Your task to perform on an android device: change notifications settings Image 0: 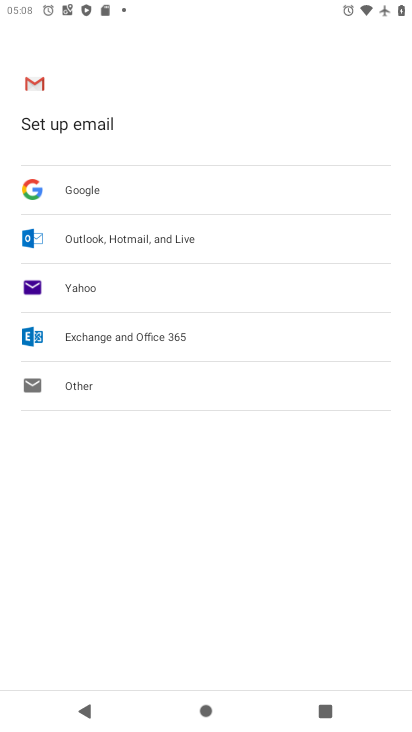
Step 0: press back button
Your task to perform on an android device: change notifications settings Image 1: 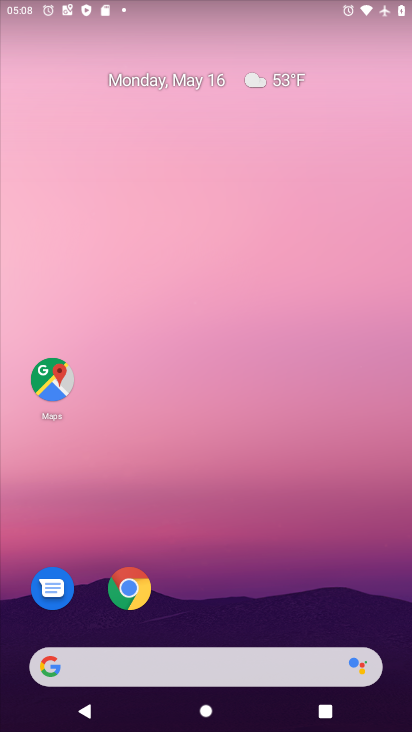
Step 1: drag from (238, 552) to (252, 3)
Your task to perform on an android device: change notifications settings Image 2: 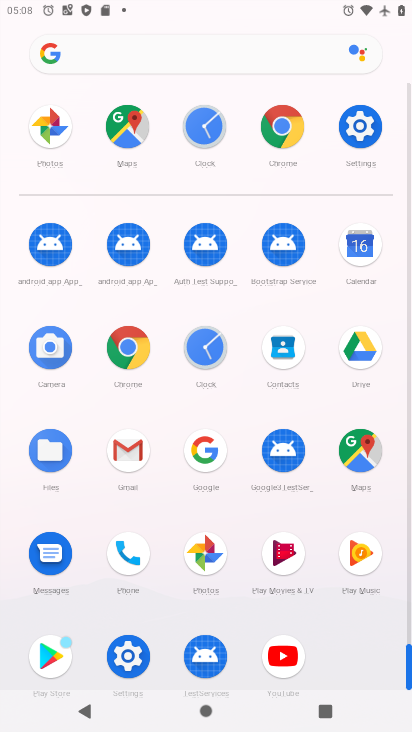
Step 2: drag from (13, 539) to (34, 187)
Your task to perform on an android device: change notifications settings Image 3: 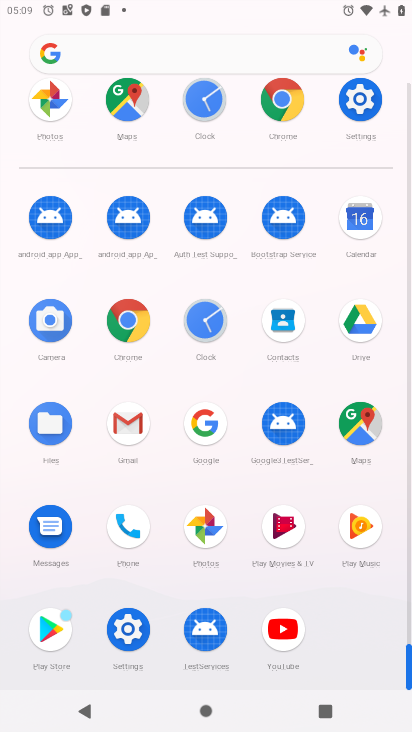
Step 3: click (128, 627)
Your task to perform on an android device: change notifications settings Image 4: 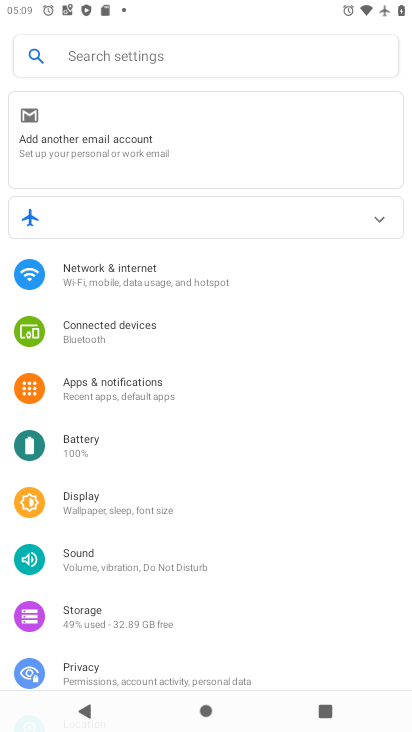
Step 4: drag from (187, 538) to (198, 201)
Your task to perform on an android device: change notifications settings Image 5: 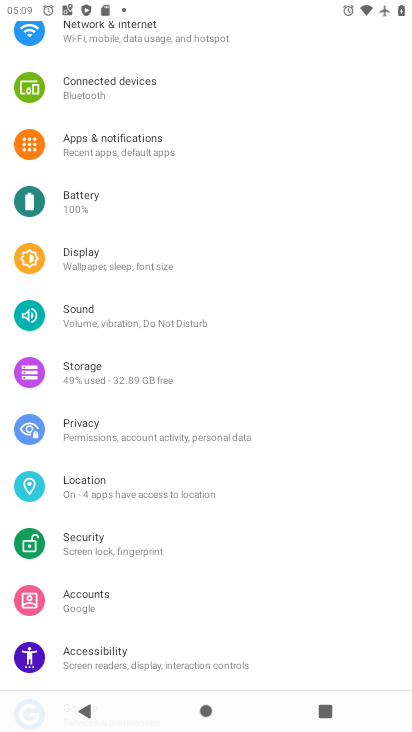
Step 5: click (154, 142)
Your task to perform on an android device: change notifications settings Image 6: 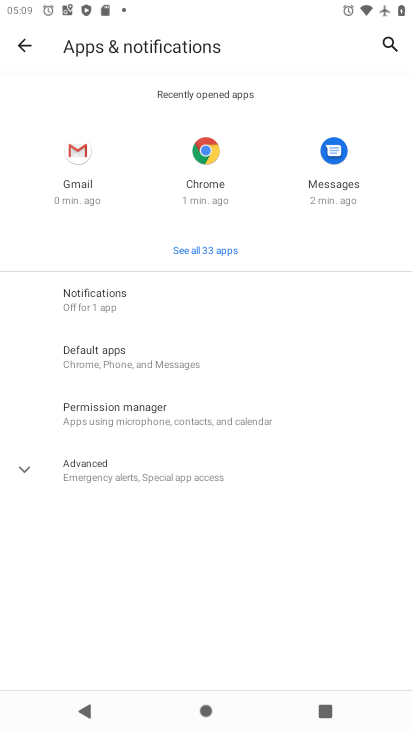
Step 6: click (26, 466)
Your task to perform on an android device: change notifications settings Image 7: 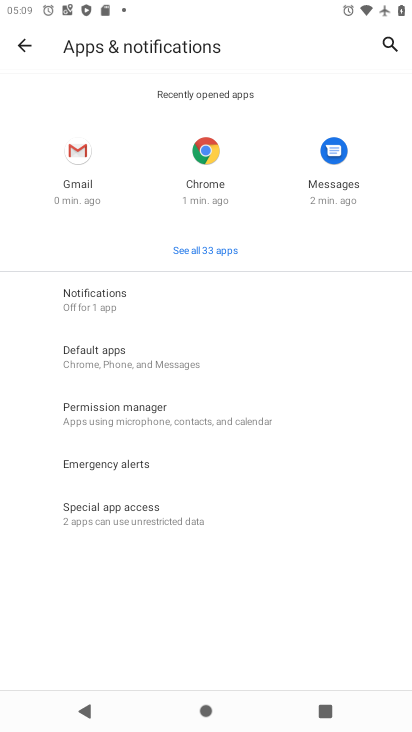
Step 7: click (133, 305)
Your task to perform on an android device: change notifications settings Image 8: 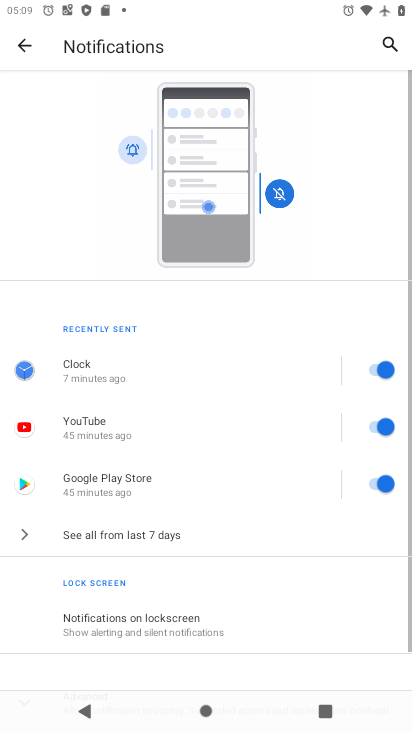
Step 8: drag from (164, 504) to (221, 117)
Your task to perform on an android device: change notifications settings Image 9: 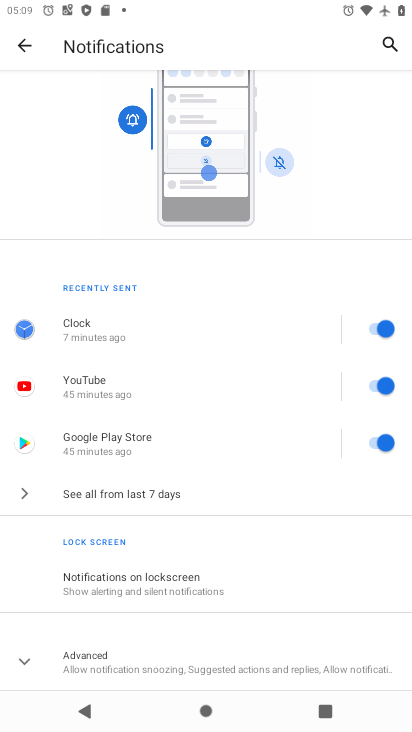
Step 9: click (31, 654)
Your task to perform on an android device: change notifications settings Image 10: 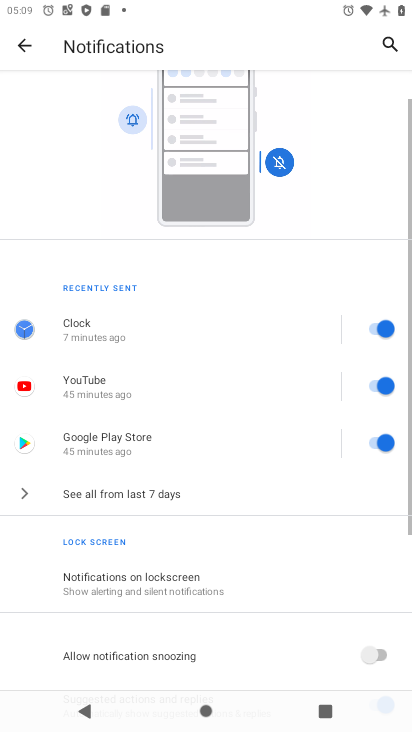
Step 10: task complete